Your task to perform on an android device: turn off smart reply in the gmail app Image 0: 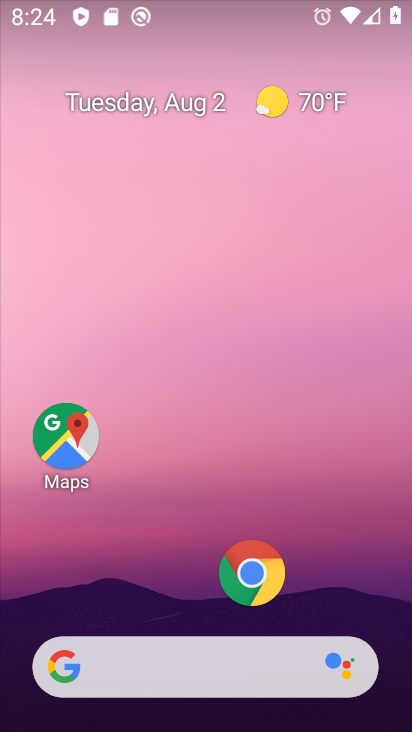
Step 0: press home button
Your task to perform on an android device: turn off smart reply in the gmail app Image 1: 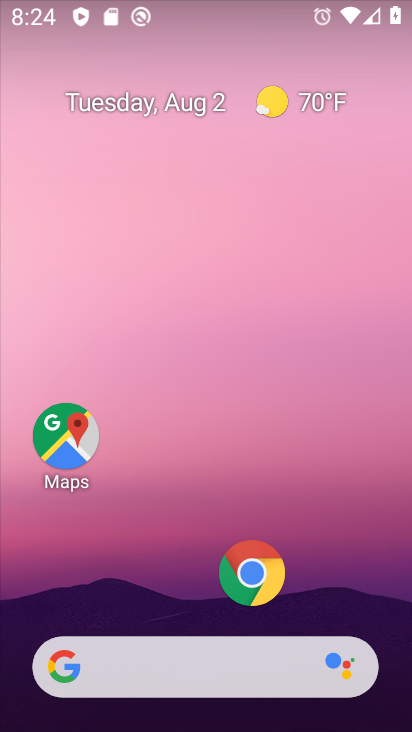
Step 1: drag from (186, 605) to (205, 38)
Your task to perform on an android device: turn off smart reply in the gmail app Image 2: 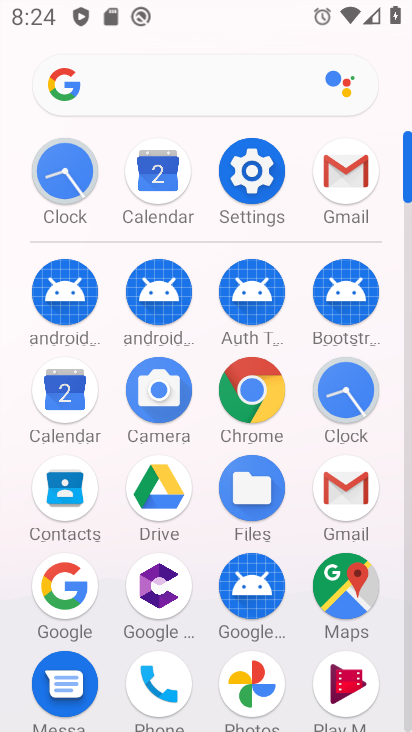
Step 2: click (340, 158)
Your task to perform on an android device: turn off smart reply in the gmail app Image 3: 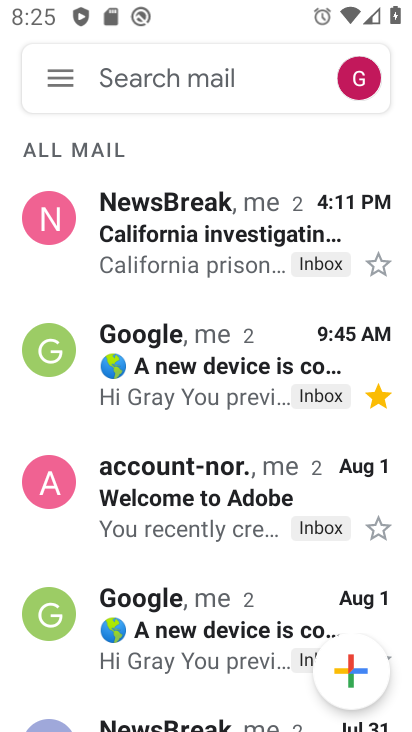
Step 3: click (51, 70)
Your task to perform on an android device: turn off smart reply in the gmail app Image 4: 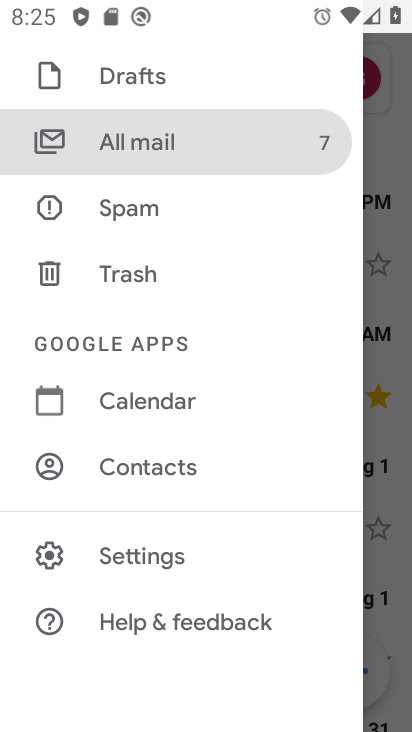
Step 4: click (141, 549)
Your task to perform on an android device: turn off smart reply in the gmail app Image 5: 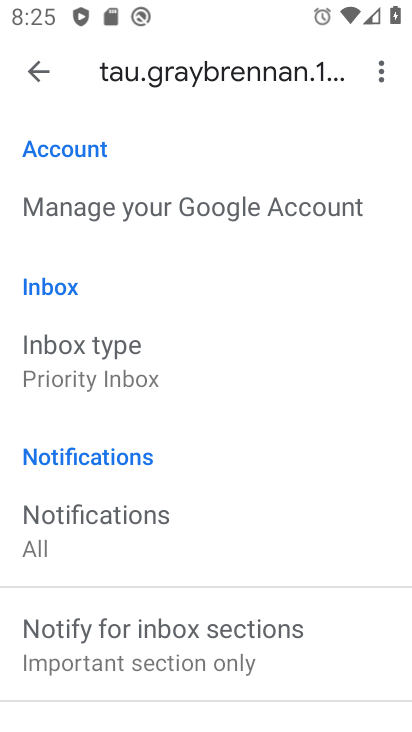
Step 5: task complete